Your task to perform on an android device: Go to network settings Image 0: 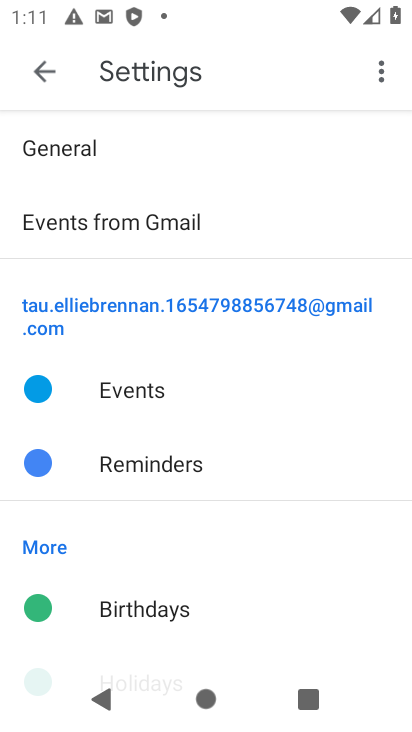
Step 0: click (35, 70)
Your task to perform on an android device: Go to network settings Image 1: 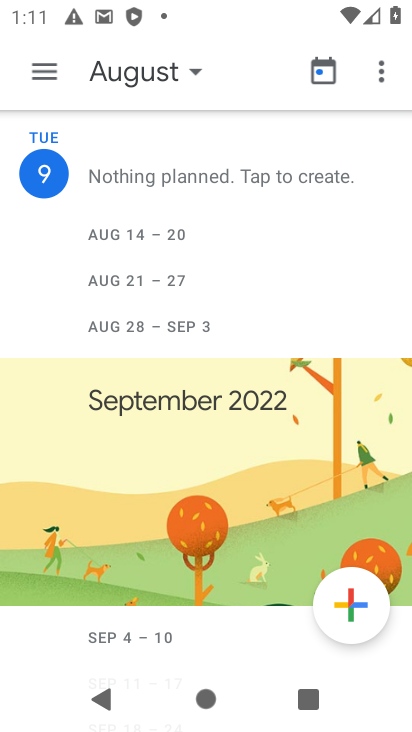
Step 1: press home button
Your task to perform on an android device: Go to network settings Image 2: 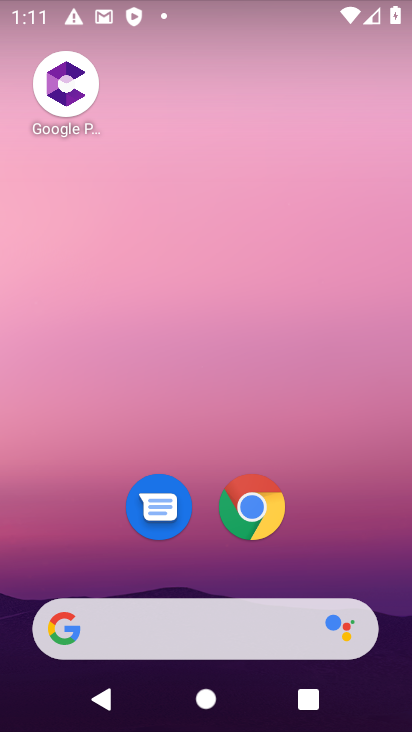
Step 2: drag from (221, 429) to (247, 14)
Your task to perform on an android device: Go to network settings Image 3: 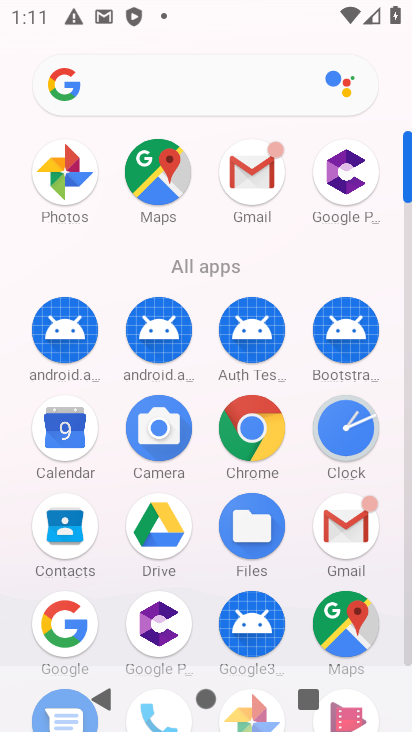
Step 3: drag from (194, 575) to (212, 300)
Your task to perform on an android device: Go to network settings Image 4: 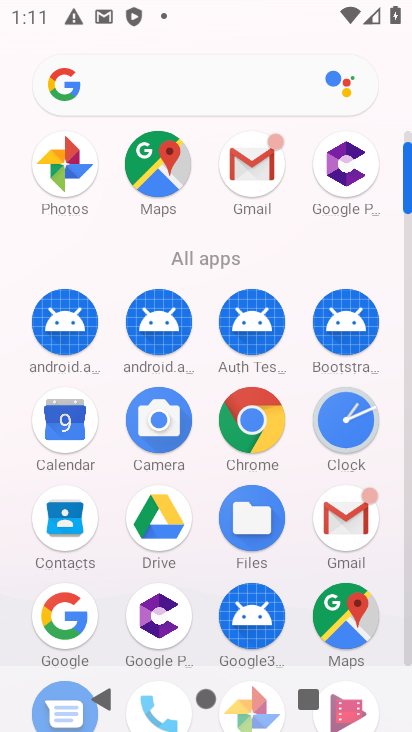
Step 4: drag from (205, 649) to (263, 262)
Your task to perform on an android device: Go to network settings Image 5: 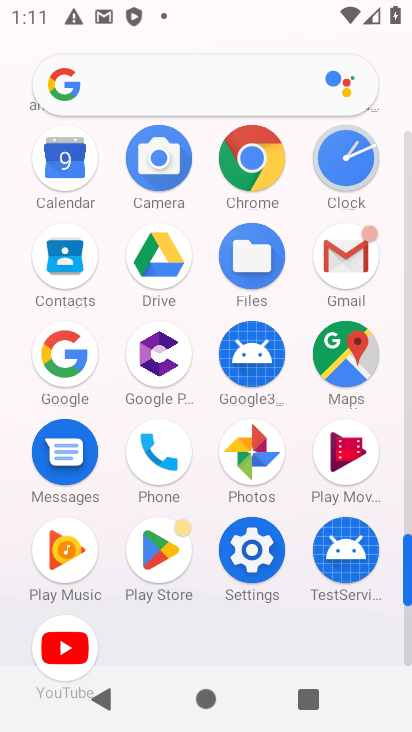
Step 5: click (257, 548)
Your task to perform on an android device: Go to network settings Image 6: 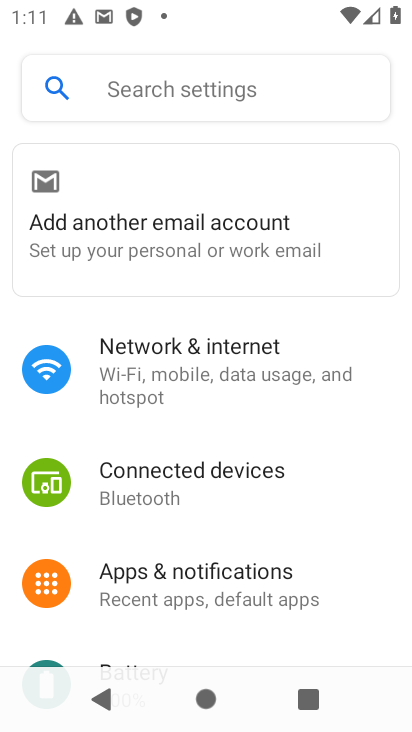
Step 6: click (149, 352)
Your task to perform on an android device: Go to network settings Image 7: 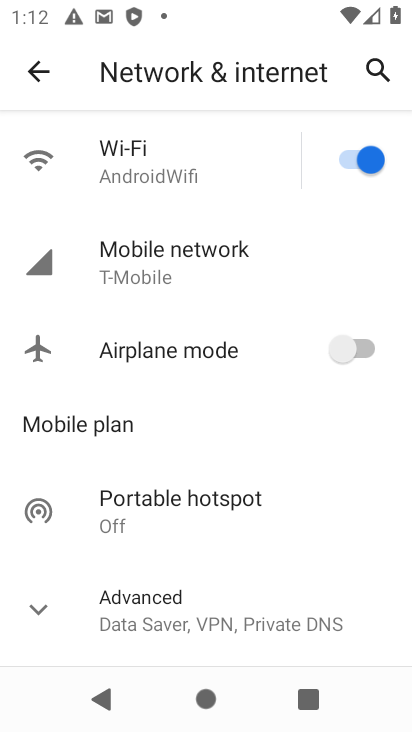
Step 7: task complete